Your task to perform on an android device: change text size in settings app Image 0: 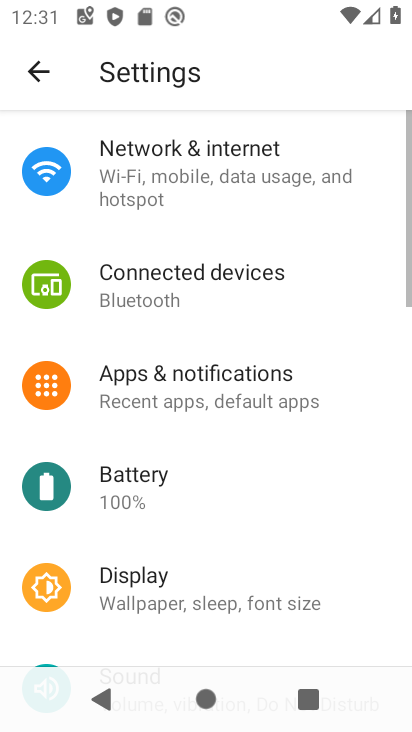
Step 0: press home button
Your task to perform on an android device: change text size in settings app Image 1: 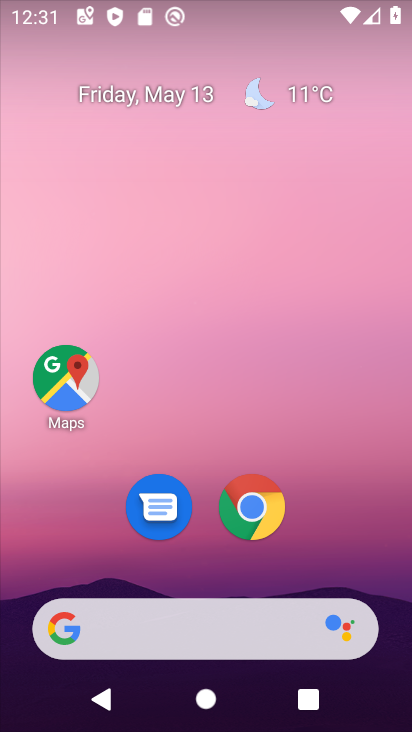
Step 1: drag from (200, 588) to (239, 9)
Your task to perform on an android device: change text size in settings app Image 2: 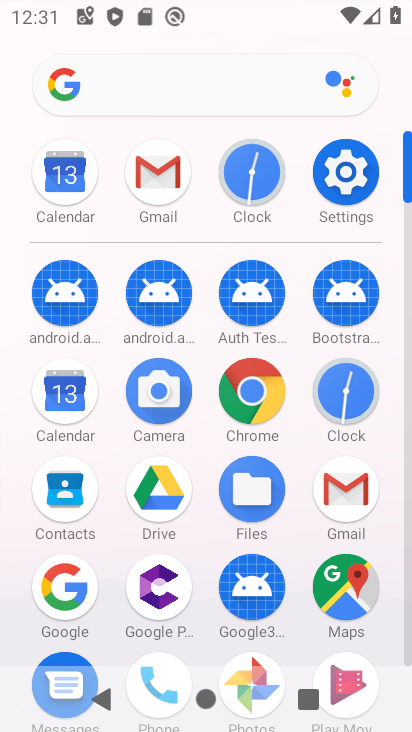
Step 2: click (371, 171)
Your task to perform on an android device: change text size in settings app Image 3: 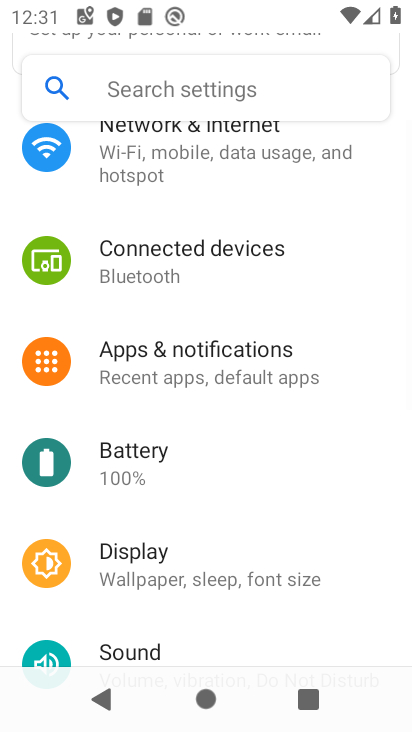
Step 3: drag from (202, 511) to (201, 322)
Your task to perform on an android device: change text size in settings app Image 4: 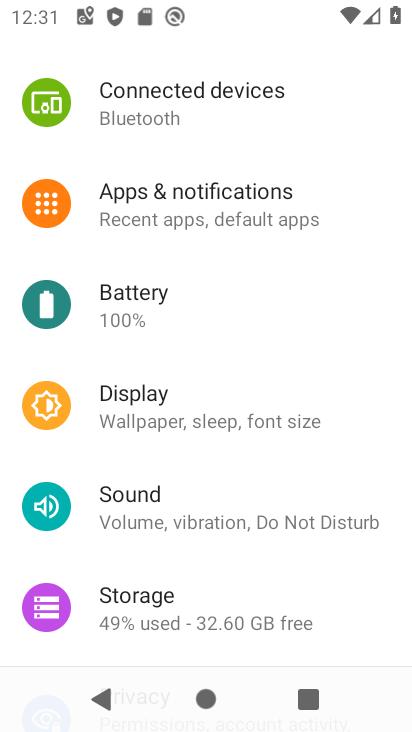
Step 4: click (168, 400)
Your task to perform on an android device: change text size in settings app Image 5: 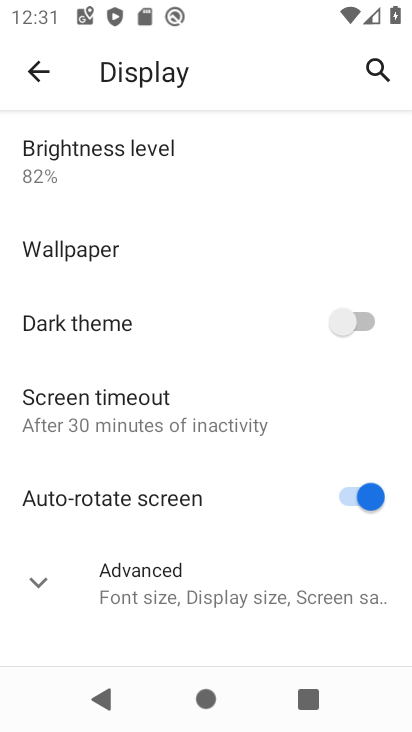
Step 5: click (205, 575)
Your task to perform on an android device: change text size in settings app Image 6: 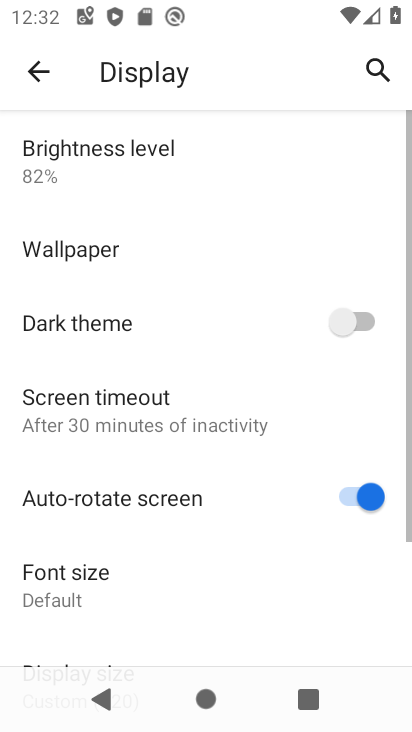
Step 6: click (52, 589)
Your task to perform on an android device: change text size in settings app Image 7: 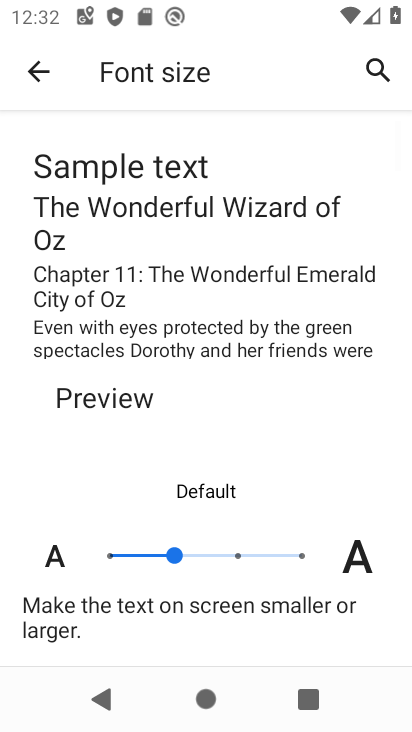
Step 7: click (119, 555)
Your task to perform on an android device: change text size in settings app Image 8: 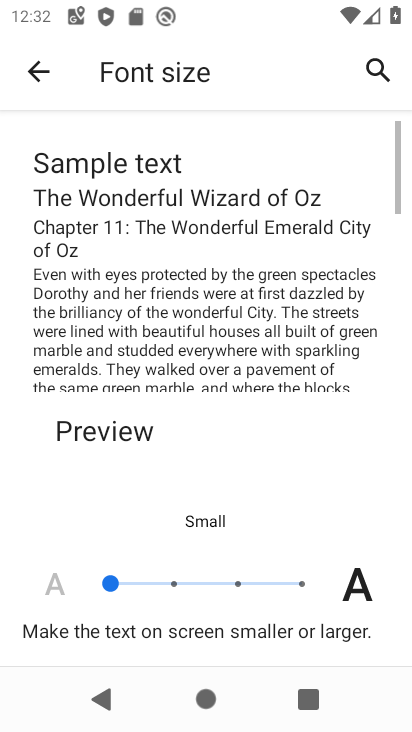
Step 8: task complete